Your task to perform on an android device: check data usage Image 0: 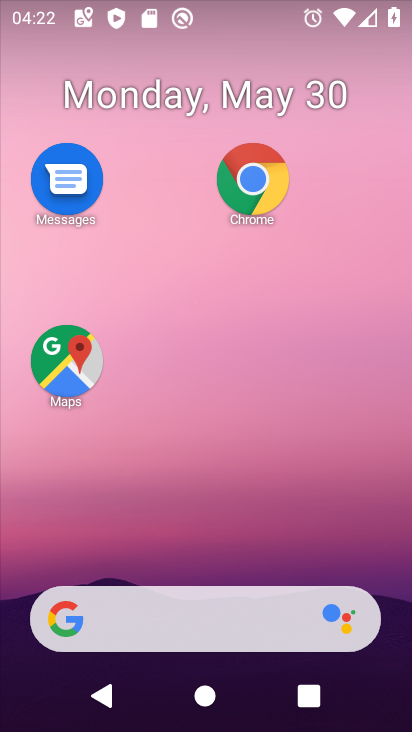
Step 0: drag from (203, 524) to (191, 15)
Your task to perform on an android device: check data usage Image 1: 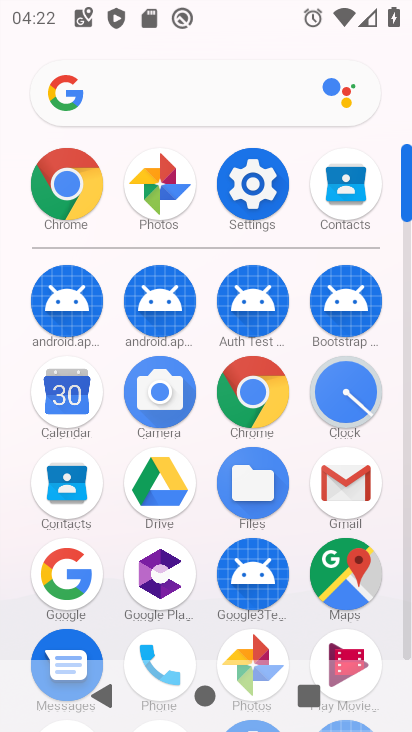
Step 1: click (254, 207)
Your task to perform on an android device: check data usage Image 2: 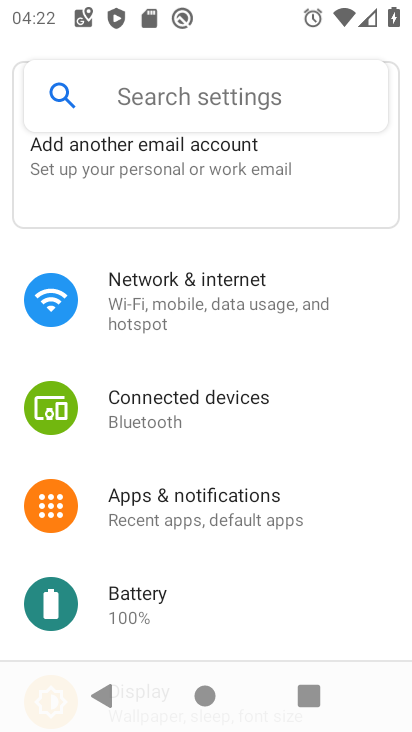
Step 2: click (197, 289)
Your task to perform on an android device: check data usage Image 3: 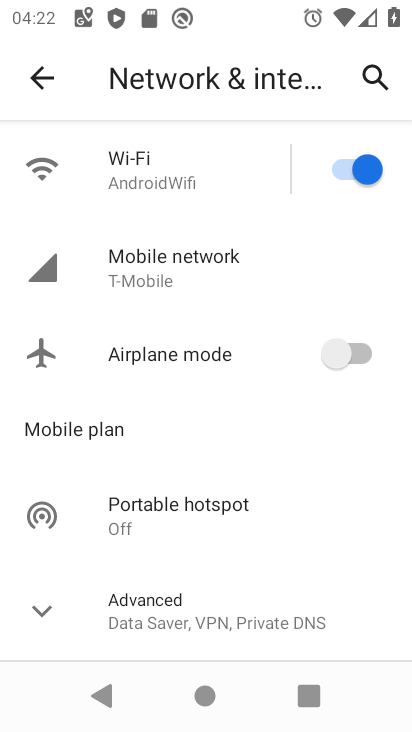
Step 3: click (147, 266)
Your task to perform on an android device: check data usage Image 4: 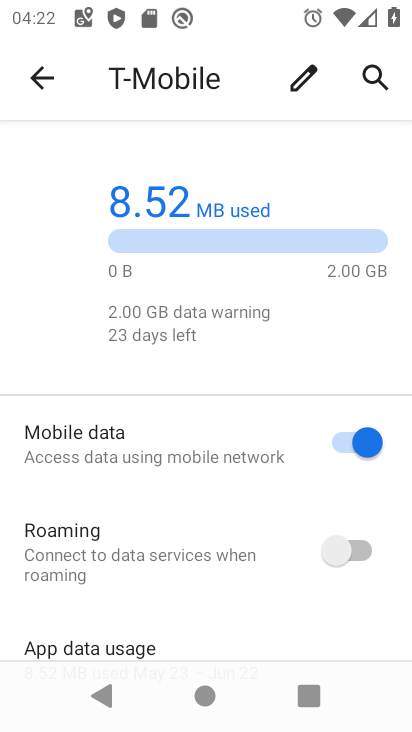
Step 4: task complete